Your task to perform on an android device: turn off wifi Image 0: 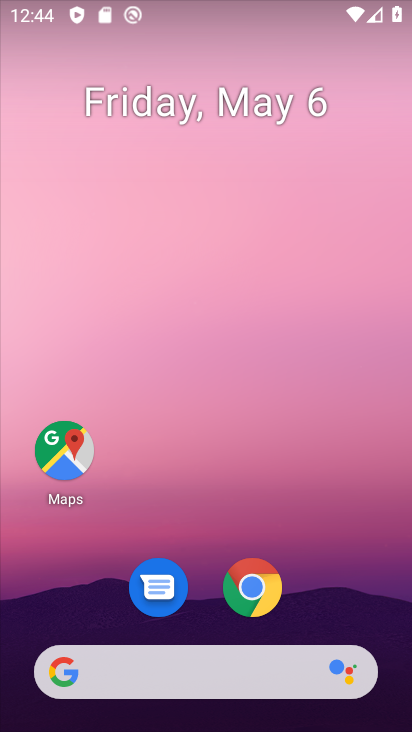
Step 0: drag from (157, 8) to (78, 386)
Your task to perform on an android device: turn off wifi Image 1: 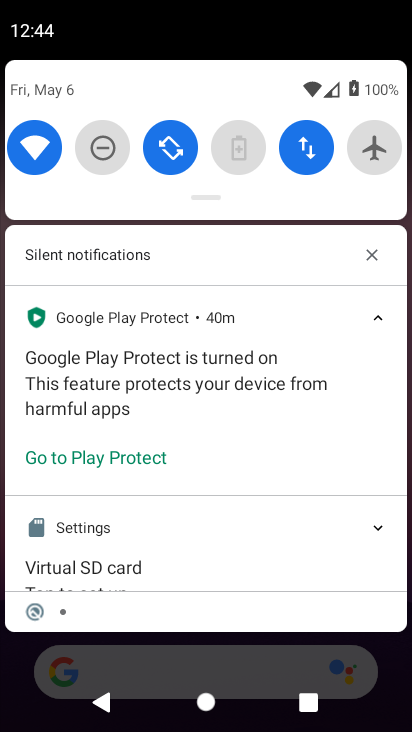
Step 1: click (22, 155)
Your task to perform on an android device: turn off wifi Image 2: 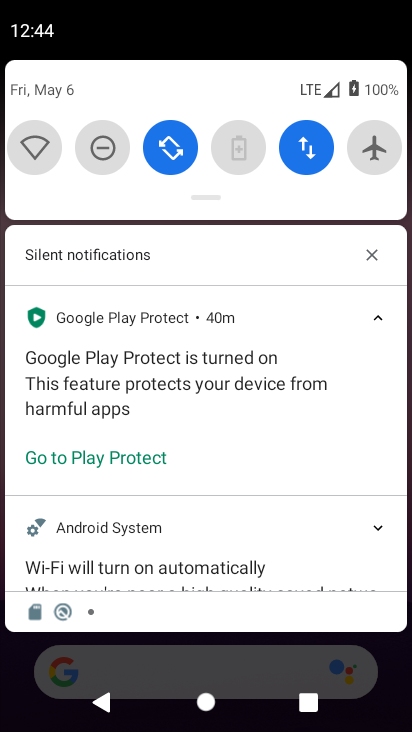
Step 2: task complete